Your task to perform on an android device: Show me recent news Image 0: 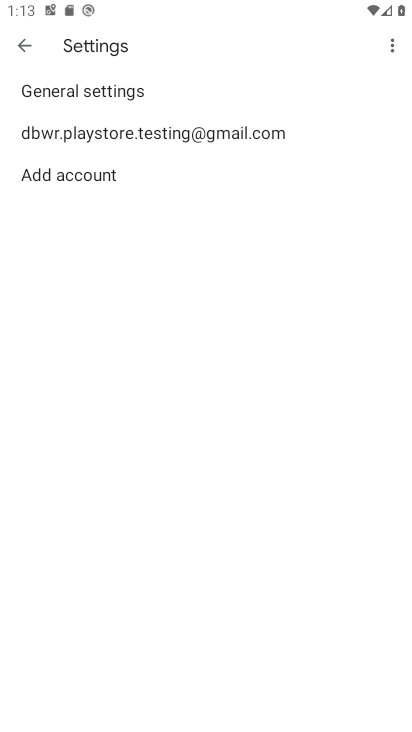
Step 0: press home button
Your task to perform on an android device: Show me recent news Image 1: 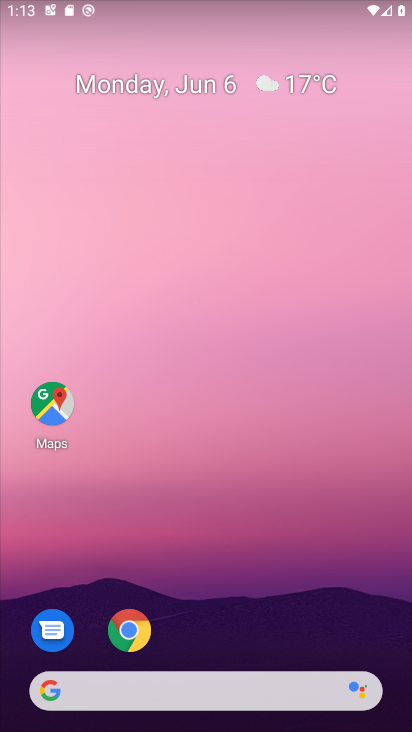
Step 1: click (141, 694)
Your task to perform on an android device: Show me recent news Image 2: 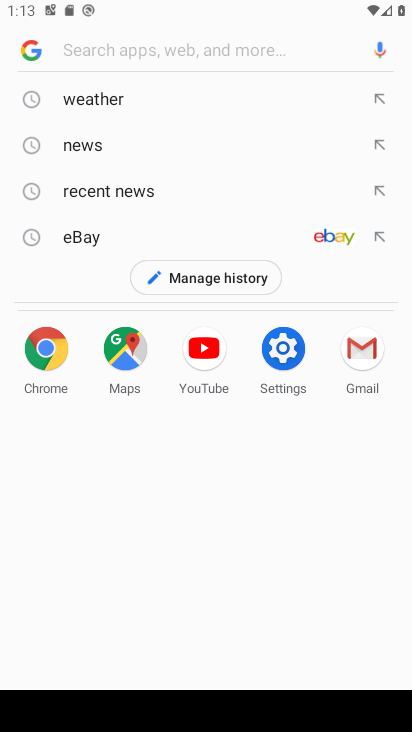
Step 2: click (121, 189)
Your task to perform on an android device: Show me recent news Image 3: 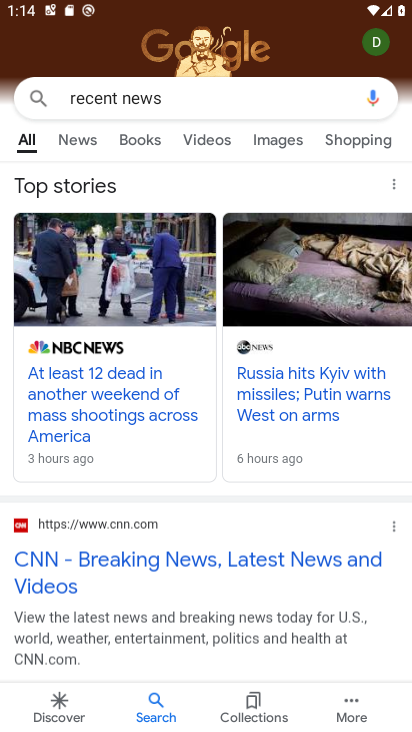
Step 3: task complete